Your task to perform on an android device: Open the calendar and show me this week's events? Image 0: 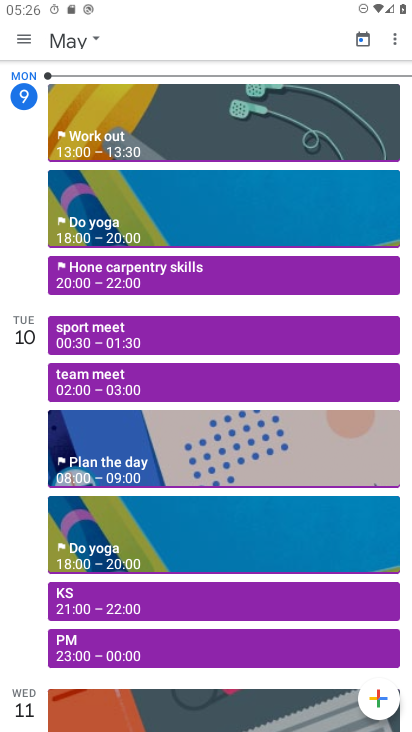
Step 0: press home button
Your task to perform on an android device: Open the calendar and show me this week's events? Image 1: 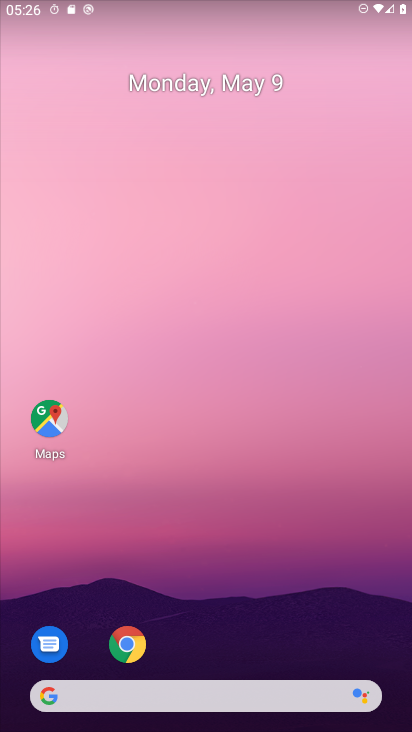
Step 1: drag from (228, 605) to (152, 54)
Your task to perform on an android device: Open the calendar and show me this week's events? Image 2: 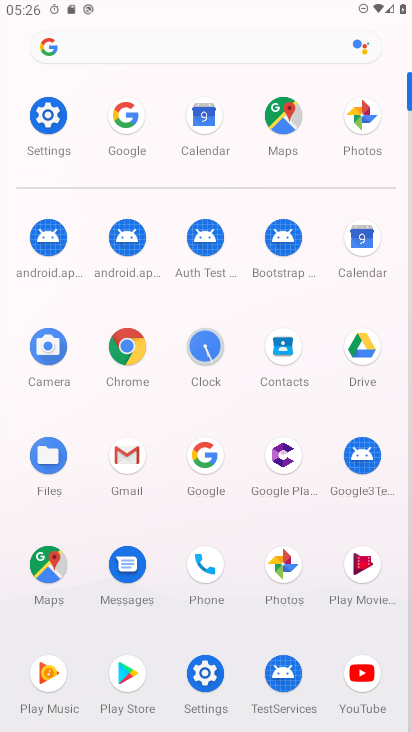
Step 2: click (365, 234)
Your task to perform on an android device: Open the calendar and show me this week's events? Image 3: 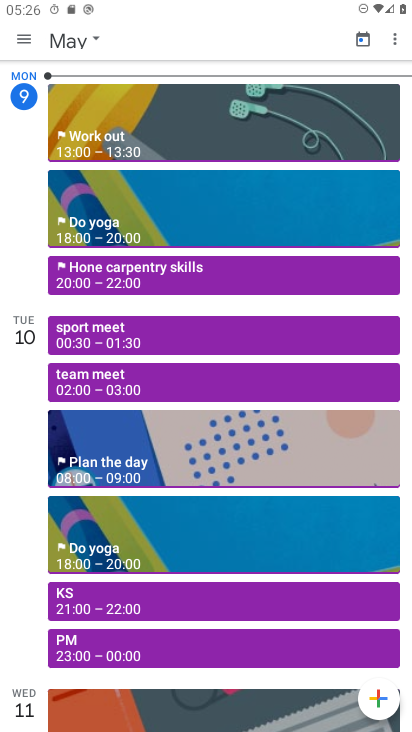
Step 3: task complete